Your task to perform on an android device: turn on priority inbox in the gmail app Image 0: 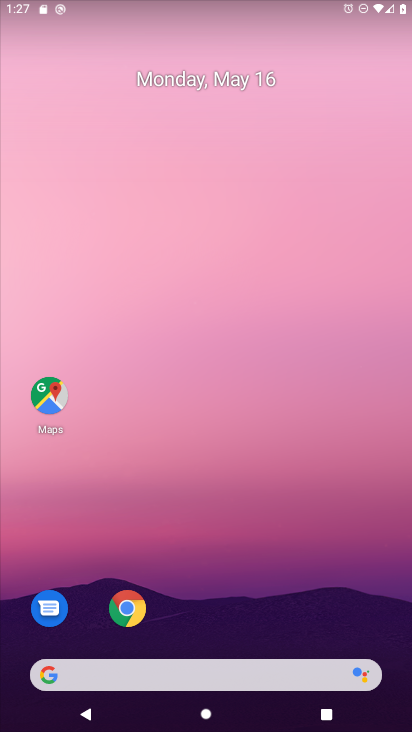
Step 0: drag from (310, 116) to (310, 80)
Your task to perform on an android device: turn on priority inbox in the gmail app Image 1: 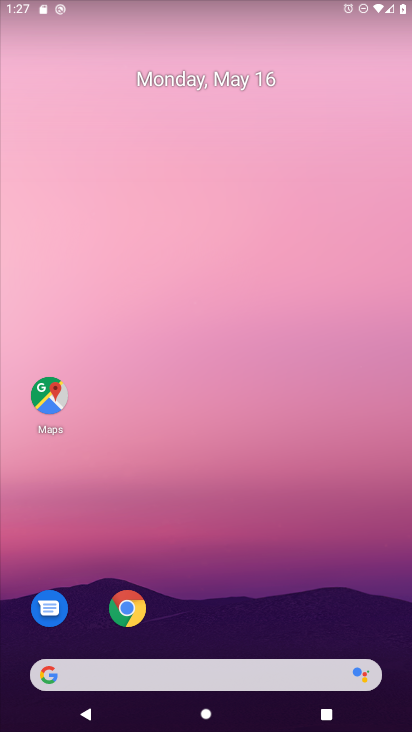
Step 1: drag from (228, 503) to (230, 161)
Your task to perform on an android device: turn on priority inbox in the gmail app Image 2: 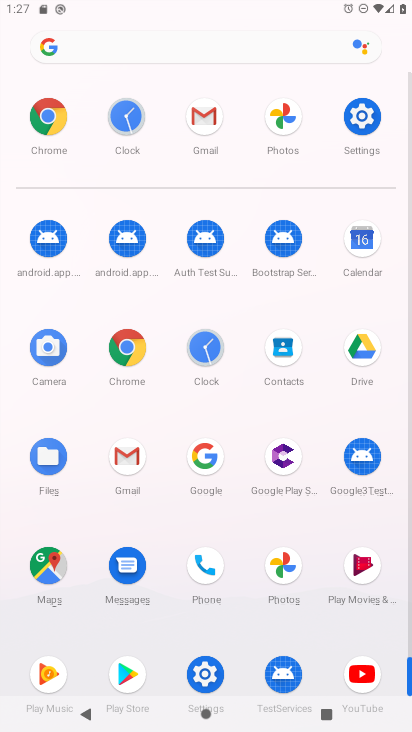
Step 2: click (123, 466)
Your task to perform on an android device: turn on priority inbox in the gmail app Image 3: 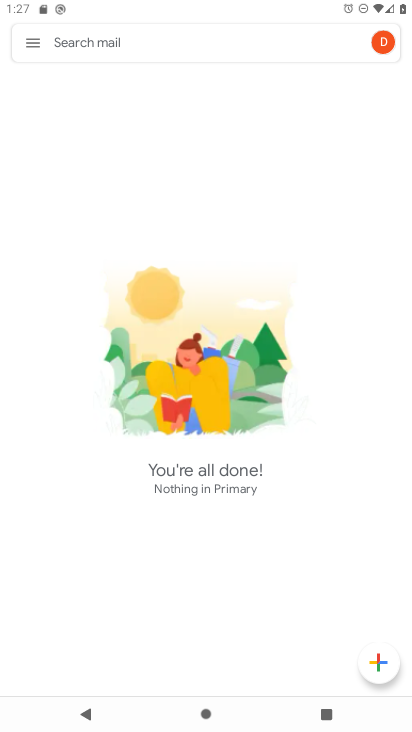
Step 3: click (31, 49)
Your task to perform on an android device: turn on priority inbox in the gmail app Image 4: 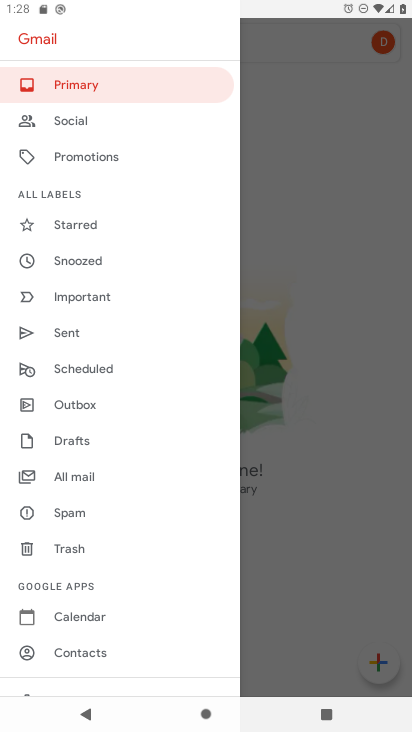
Step 4: drag from (113, 655) to (136, 303)
Your task to perform on an android device: turn on priority inbox in the gmail app Image 5: 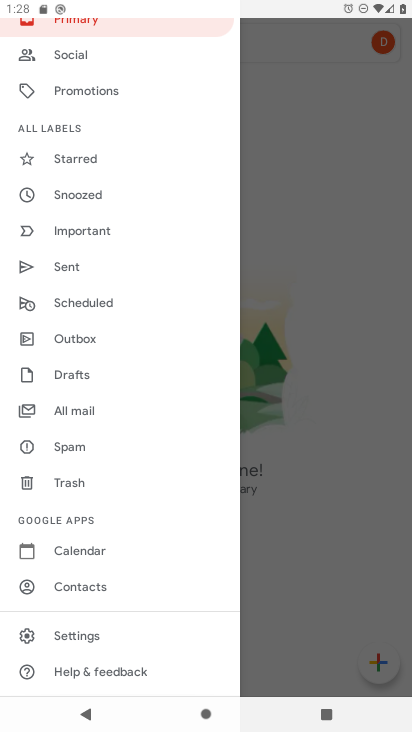
Step 5: click (91, 641)
Your task to perform on an android device: turn on priority inbox in the gmail app Image 6: 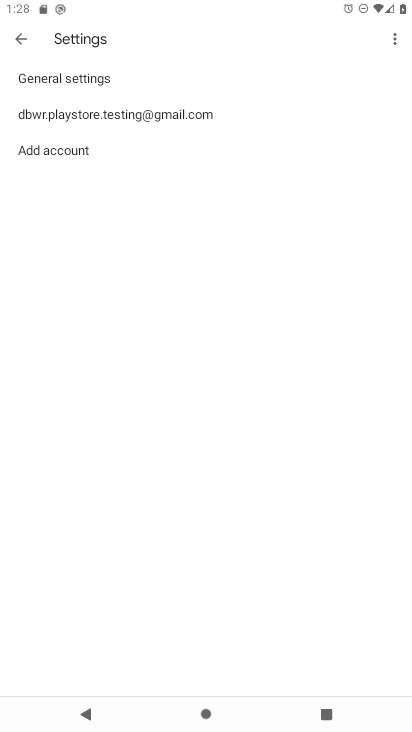
Step 6: click (143, 114)
Your task to perform on an android device: turn on priority inbox in the gmail app Image 7: 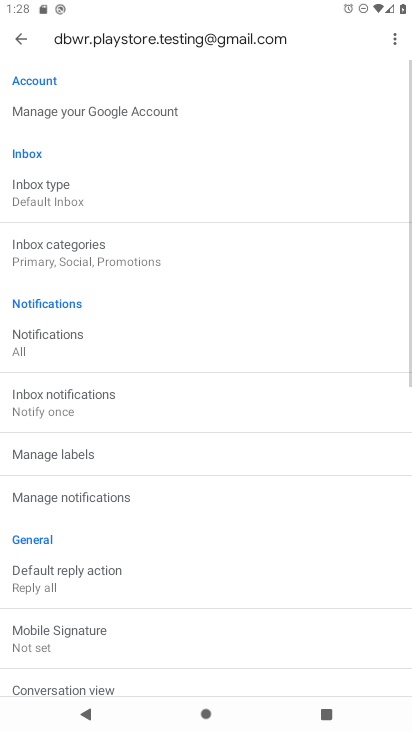
Step 7: click (120, 202)
Your task to perform on an android device: turn on priority inbox in the gmail app Image 8: 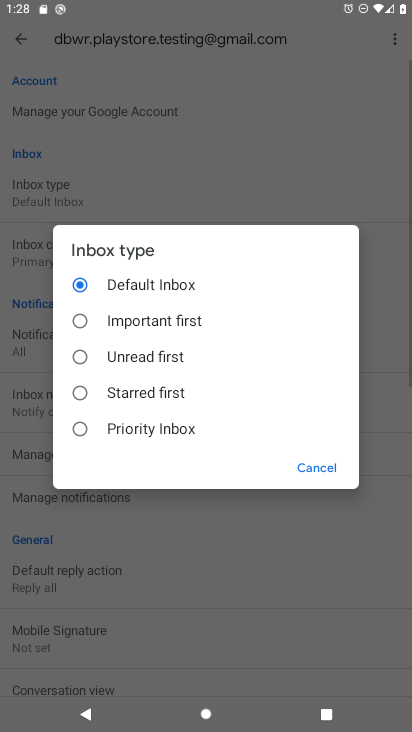
Step 8: click (179, 432)
Your task to perform on an android device: turn on priority inbox in the gmail app Image 9: 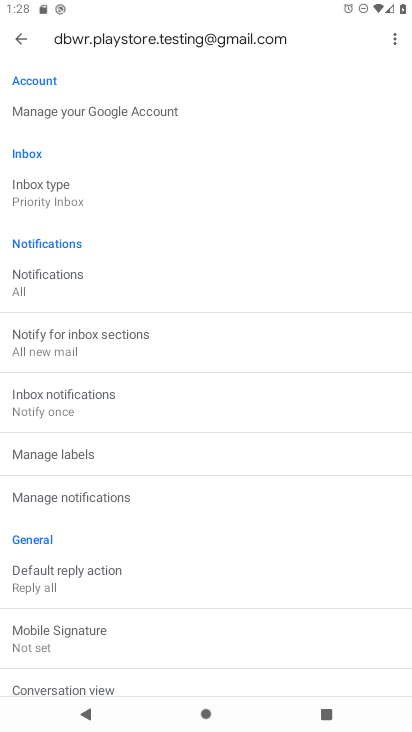
Step 9: task complete